Your task to perform on an android device: turn on improve location accuracy Image 0: 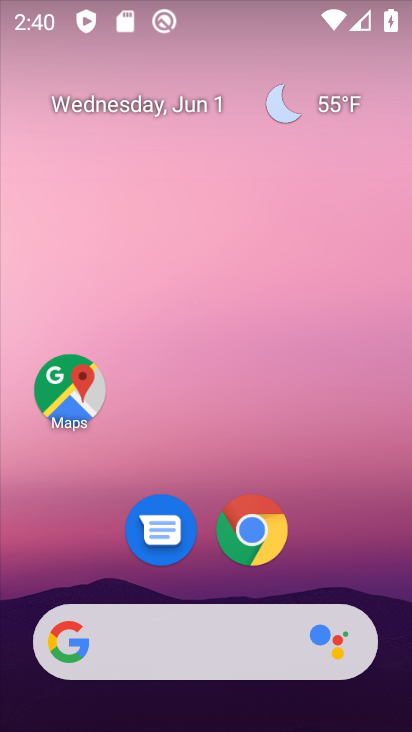
Step 0: click (42, 391)
Your task to perform on an android device: turn on improve location accuracy Image 1: 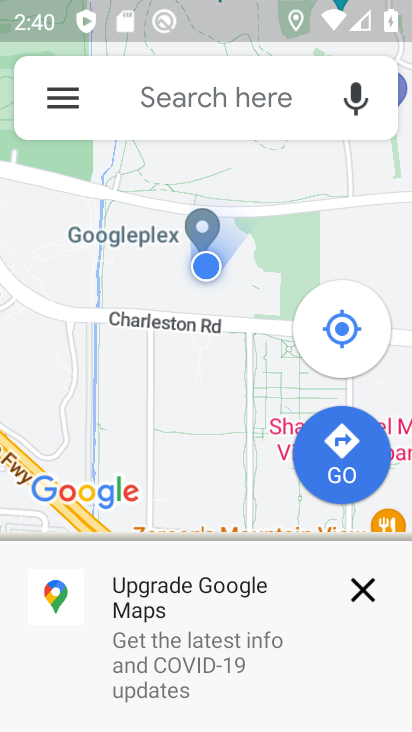
Step 1: click (71, 109)
Your task to perform on an android device: turn on improve location accuracy Image 2: 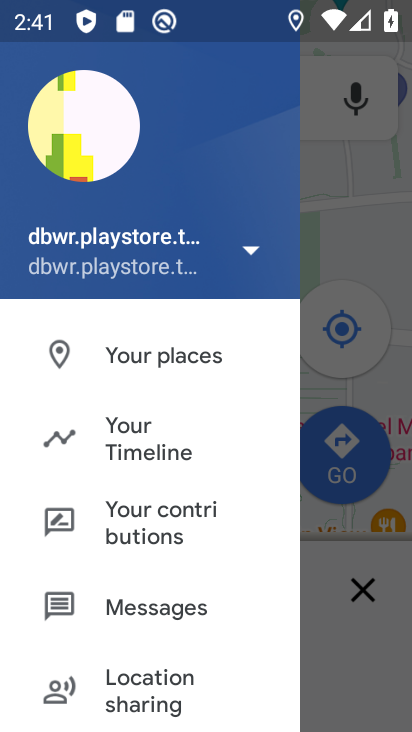
Step 2: drag from (31, 637) to (49, 295)
Your task to perform on an android device: turn on improve location accuracy Image 3: 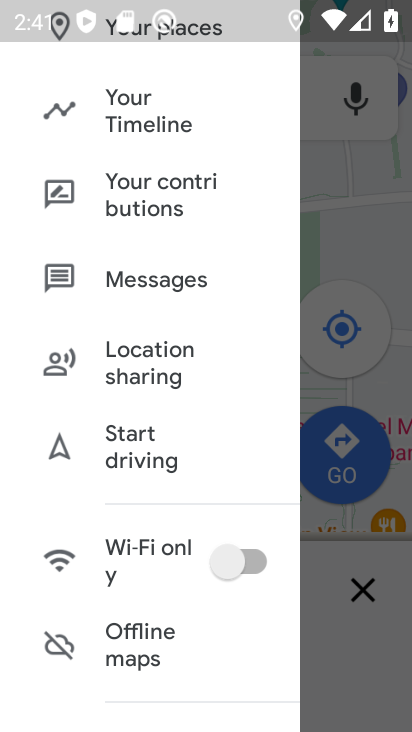
Step 3: drag from (144, 653) to (151, 292)
Your task to perform on an android device: turn on improve location accuracy Image 4: 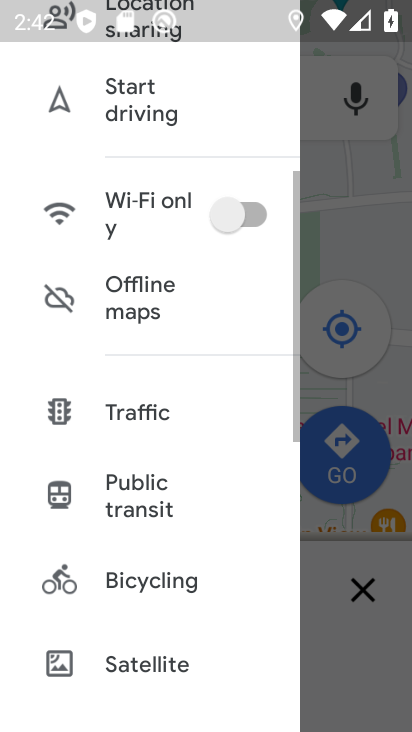
Step 4: drag from (139, 570) to (105, 209)
Your task to perform on an android device: turn on improve location accuracy Image 5: 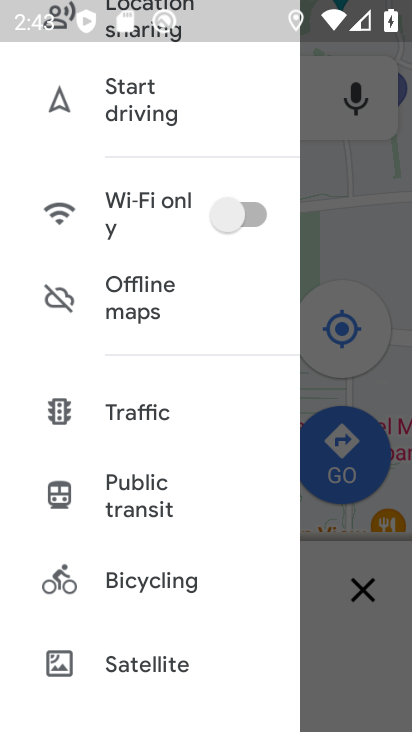
Step 5: drag from (40, 640) to (87, 107)
Your task to perform on an android device: turn on improve location accuracy Image 6: 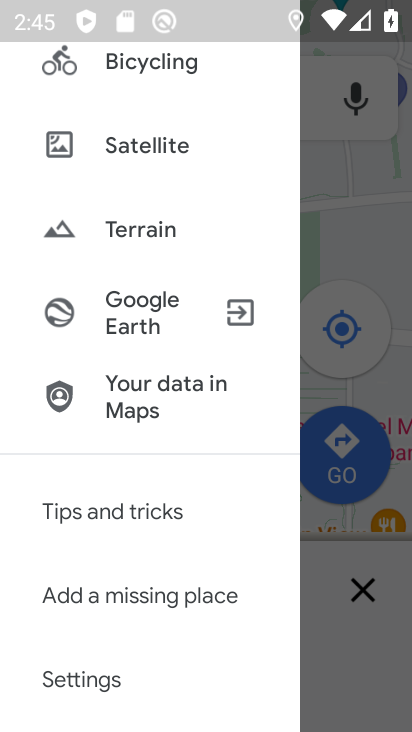
Step 6: click (70, 700)
Your task to perform on an android device: turn on improve location accuracy Image 7: 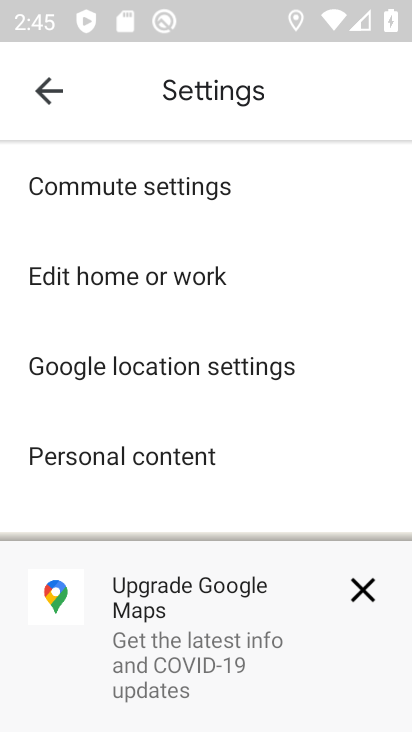
Step 7: click (391, 576)
Your task to perform on an android device: turn on improve location accuracy Image 8: 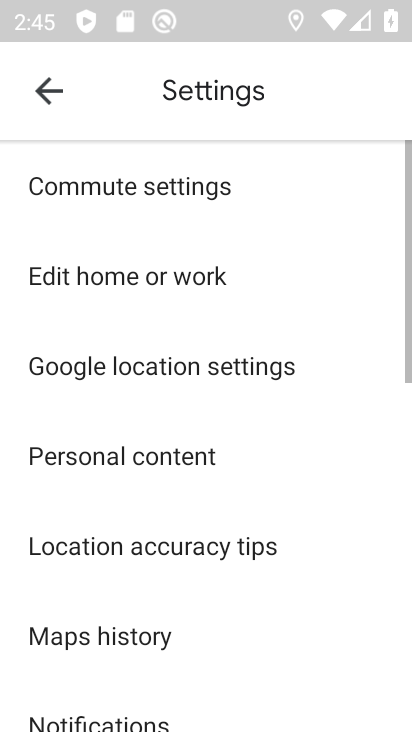
Step 8: task complete